Your task to perform on an android device: delete a single message in the gmail app Image 0: 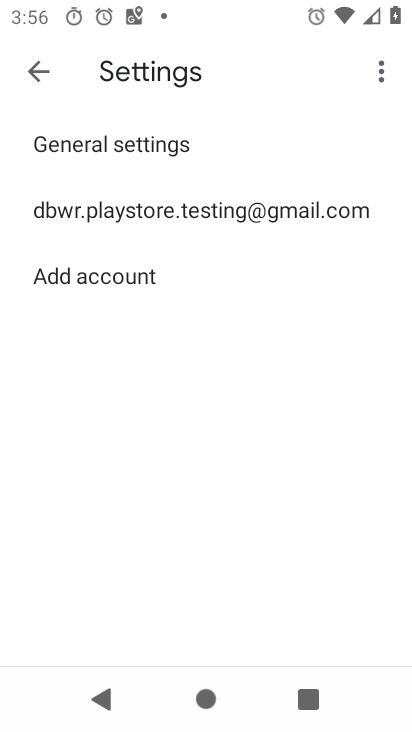
Step 0: click (38, 80)
Your task to perform on an android device: delete a single message in the gmail app Image 1: 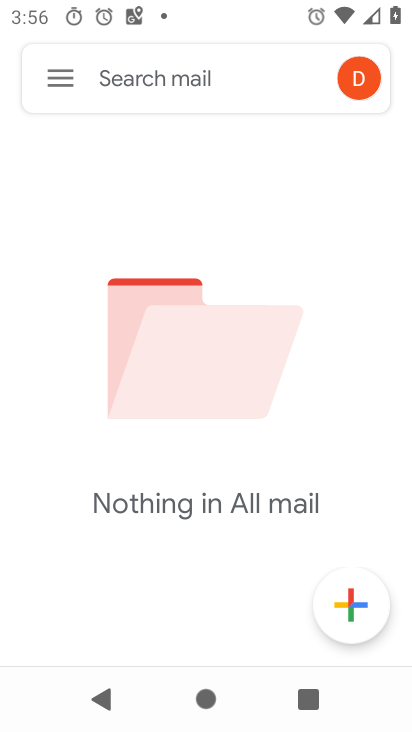
Step 1: click (53, 80)
Your task to perform on an android device: delete a single message in the gmail app Image 2: 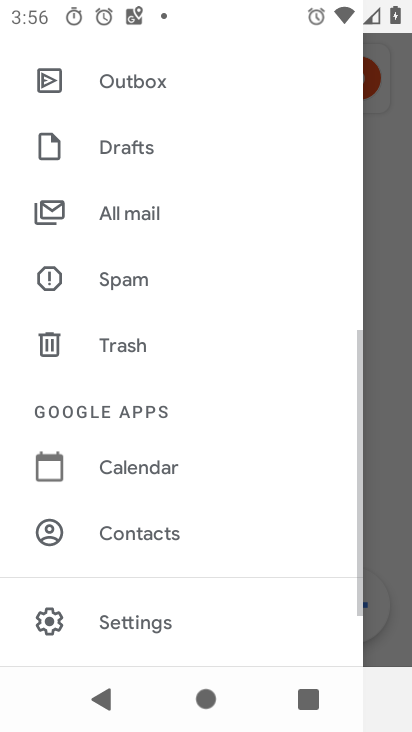
Step 2: click (89, 215)
Your task to perform on an android device: delete a single message in the gmail app Image 3: 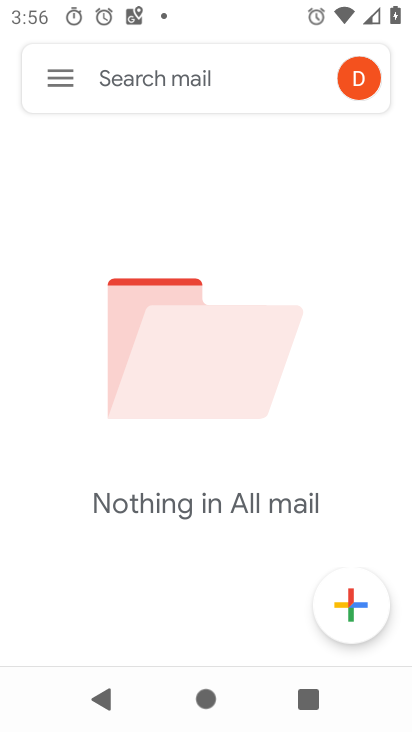
Step 3: task complete